Your task to perform on an android device: check google app version Image 0: 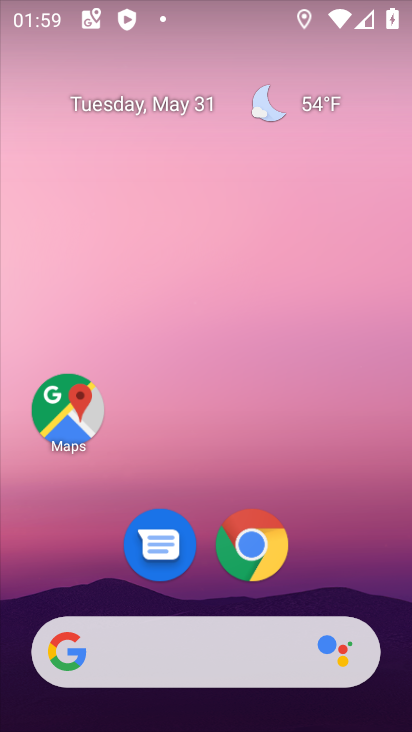
Step 0: drag from (382, 560) to (299, 171)
Your task to perform on an android device: check google app version Image 1: 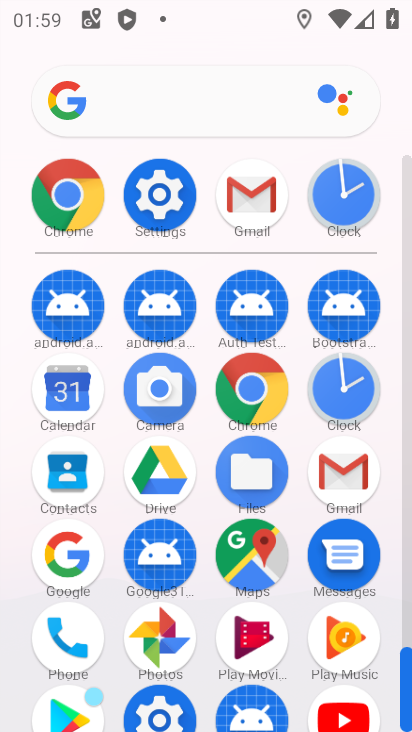
Step 1: click (69, 540)
Your task to perform on an android device: check google app version Image 2: 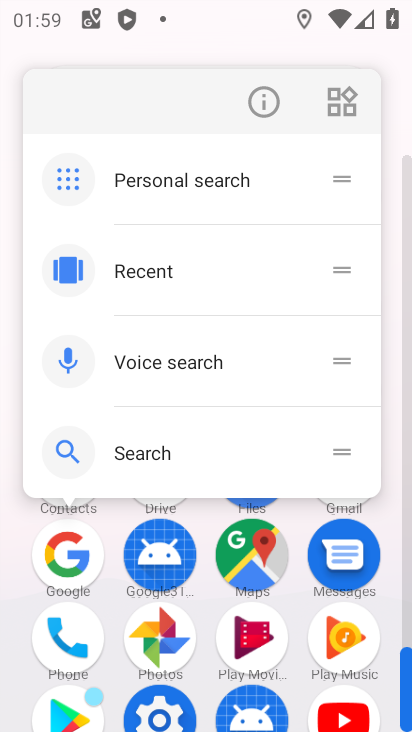
Step 2: click (263, 105)
Your task to perform on an android device: check google app version Image 3: 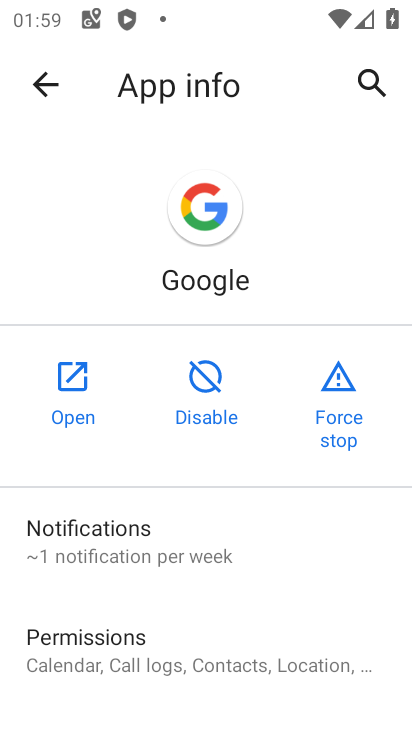
Step 3: drag from (227, 536) to (194, 106)
Your task to perform on an android device: check google app version Image 4: 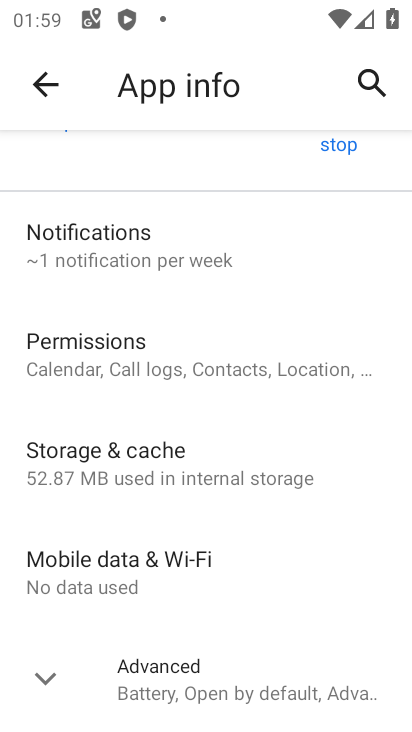
Step 4: drag from (202, 563) to (179, 64)
Your task to perform on an android device: check google app version Image 5: 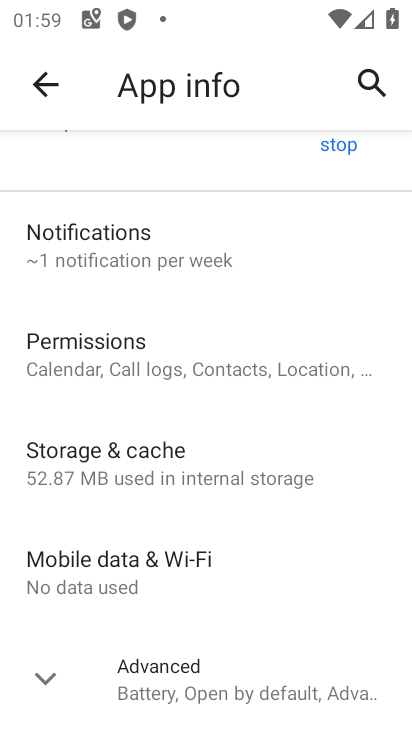
Step 5: click (206, 675)
Your task to perform on an android device: check google app version Image 6: 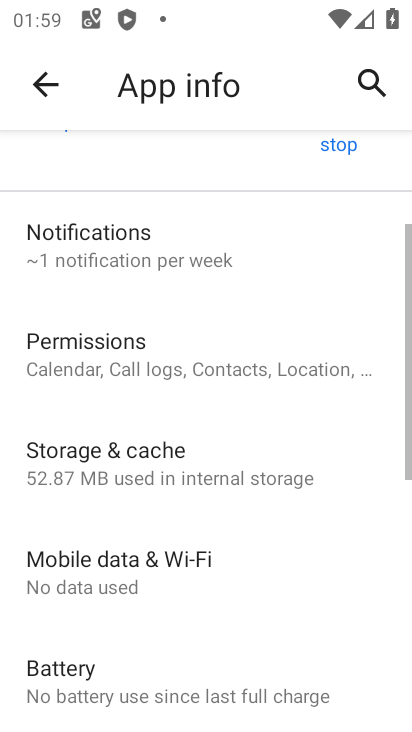
Step 6: task complete